Your task to perform on an android device: Turn on the flashlight Image 0: 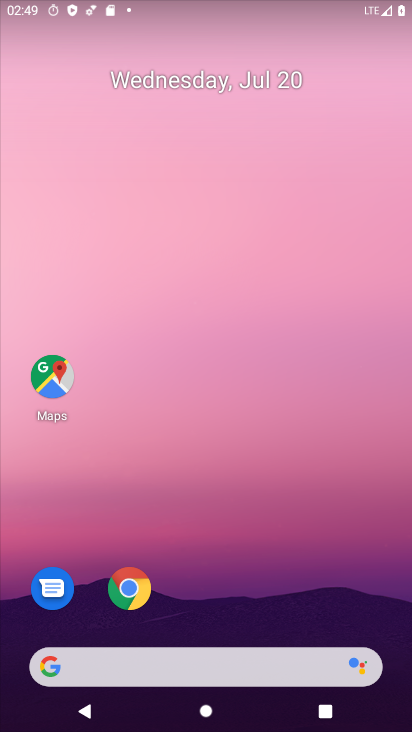
Step 0: drag from (180, 619) to (194, 256)
Your task to perform on an android device: Turn on the flashlight Image 1: 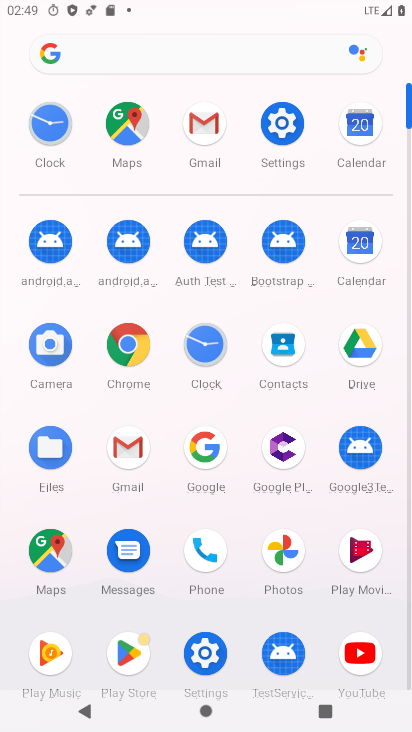
Step 1: click (278, 113)
Your task to perform on an android device: Turn on the flashlight Image 2: 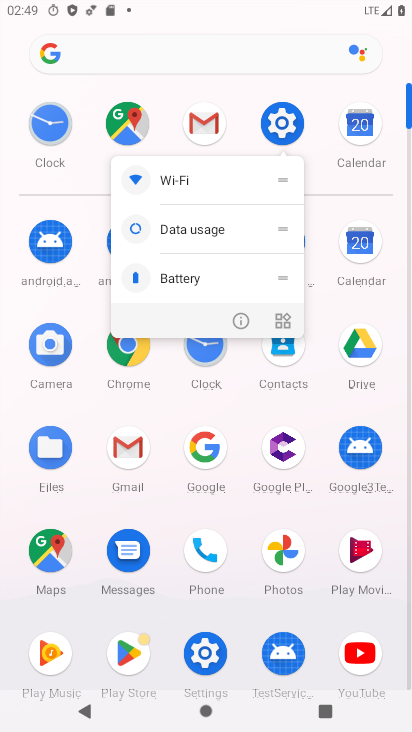
Step 2: click (240, 310)
Your task to perform on an android device: Turn on the flashlight Image 3: 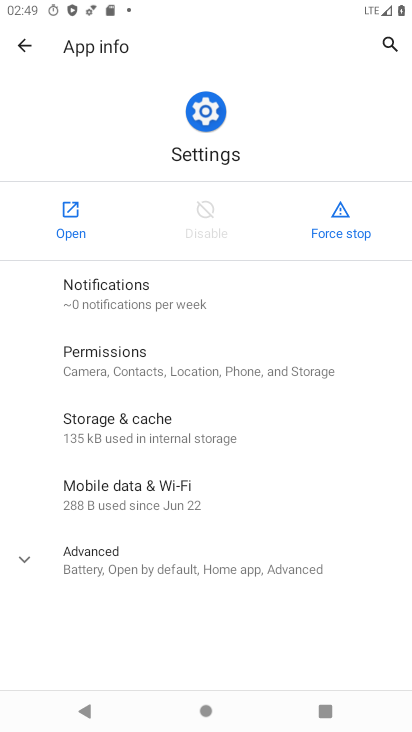
Step 3: click (92, 211)
Your task to perform on an android device: Turn on the flashlight Image 4: 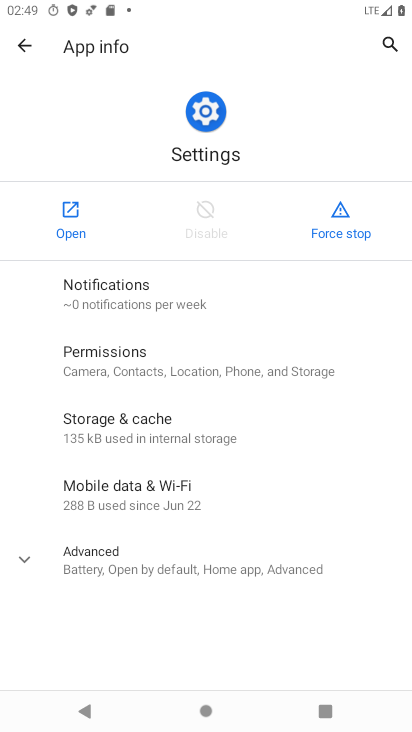
Step 4: click (77, 208)
Your task to perform on an android device: Turn on the flashlight Image 5: 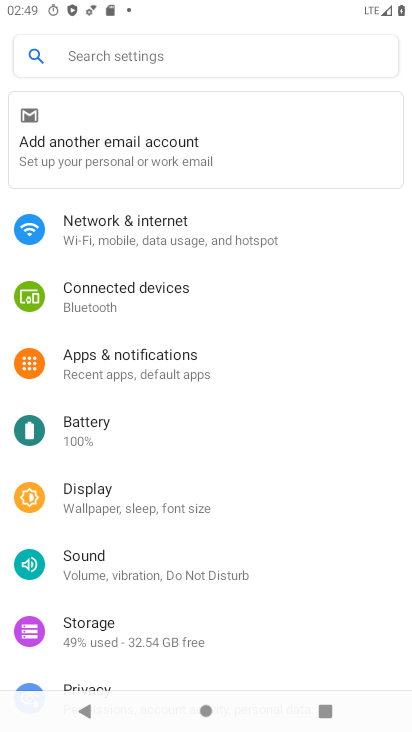
Step 5: click (197, 67)
Your task to perform on an android device: Turn on the flashlight Image 6: 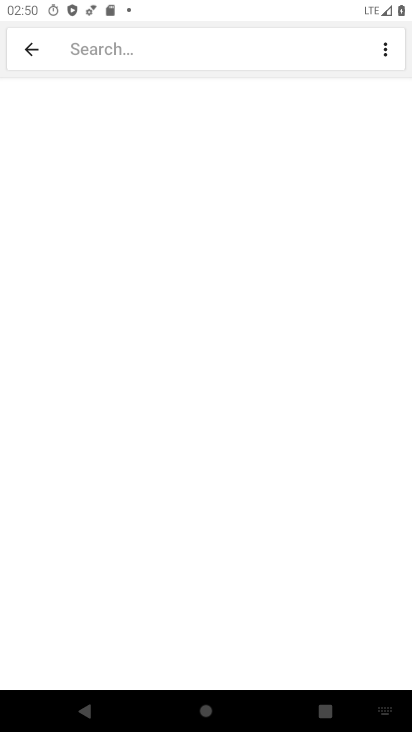
Step 6: type "flashlight"
Your task to perform on an android device: Turn on the flashlight Image 7: 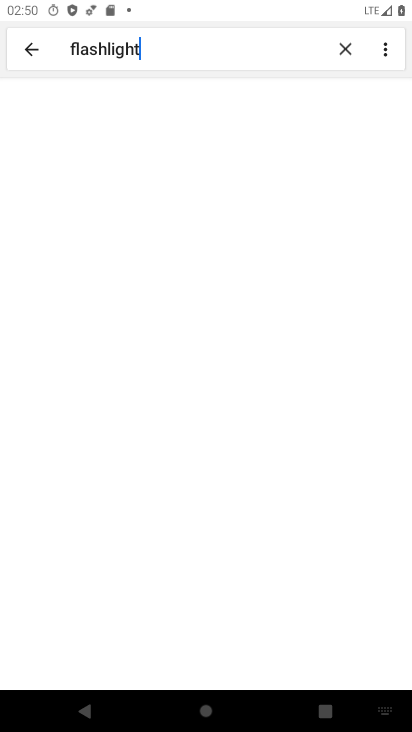
Step 7: type ""
Your task to perform on an android device: Turn on the flashlight Image 8: 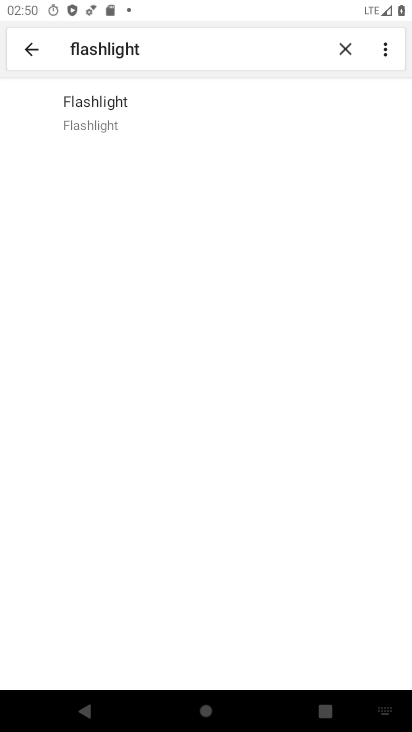
Step 8: click (86, 119)
Your task to perform on an android device: Turn on the flashlight Image 9: 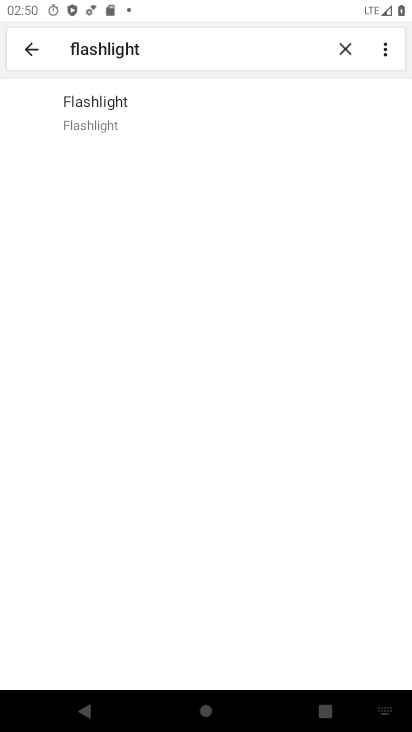
Step 9: task complete